Your task to perform on an android device: open chrome and create a bookmark for the current page Image 0: 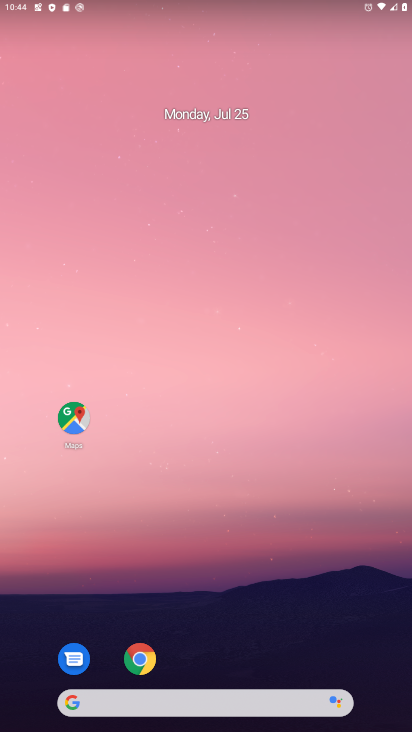
Step 0: drag from (203, 673) to (125, 184)
Your task to perform on an android device: open chrome and create a bookmark for the current page Image 1: 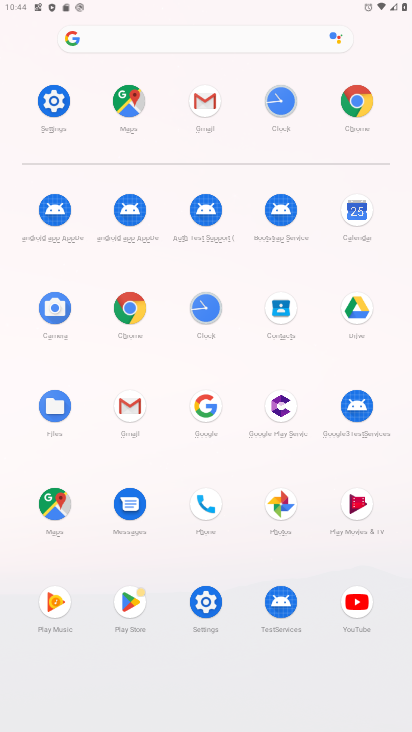
Step 1: click (132, 314)
Your task to perform on an android device: open chrome and create a bookmark for the current page Image 2: 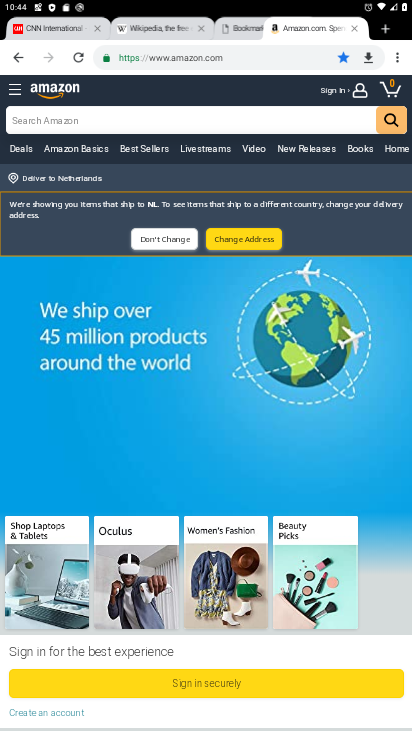
Step 2: task complete